Your task to perform on an android device: find photos in the google photos app Image 0: 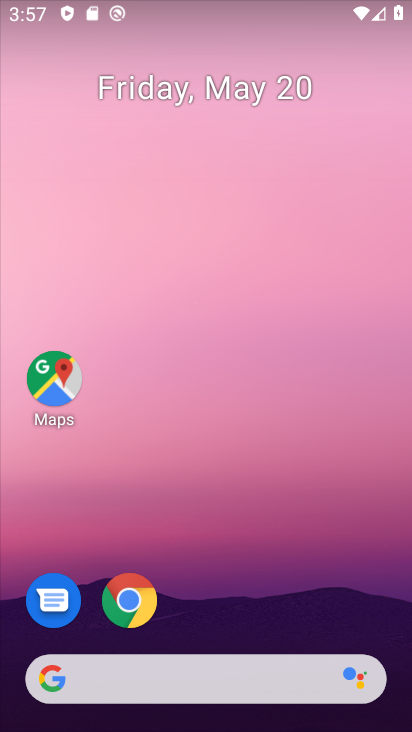
Step 0: drag from (216, 527) to (167, 16)
Your task to perform on an android device: find photos in the google photos app Image 1: 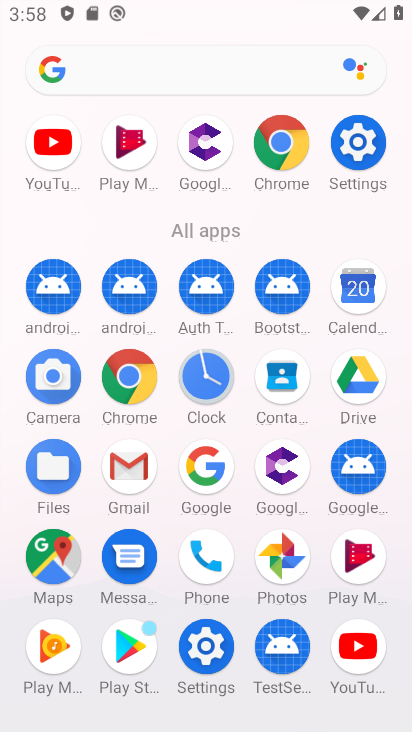
Step 1: drag from (10, 597) to (16, 251)
Your task to perform on an android device: find photos in the google photos app Image 2: 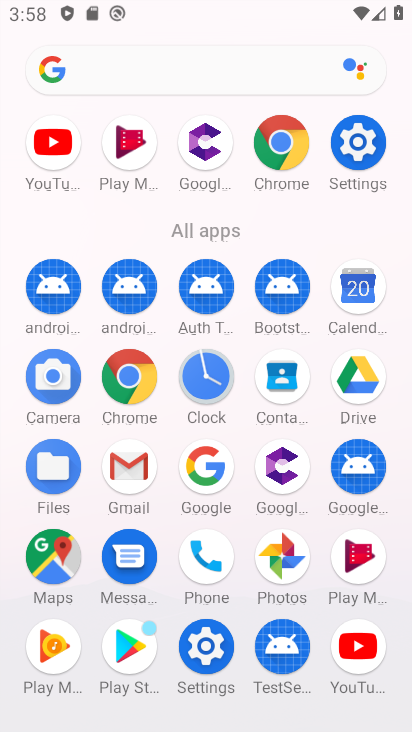
Step 2: drag from (15, 620) to (14, 319)
Your task to perform on an android device: find photos in the google photos app Image 3: 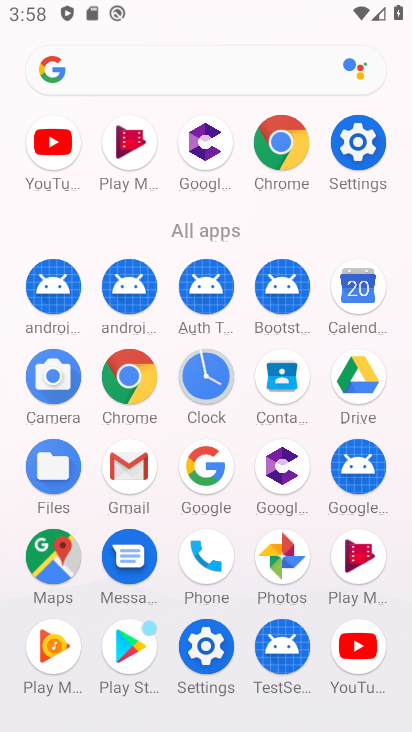
Step 3: drag from (20, 606) to (9, 289)
Your task to perform on an android device: find photos in the google photos app Image 4: 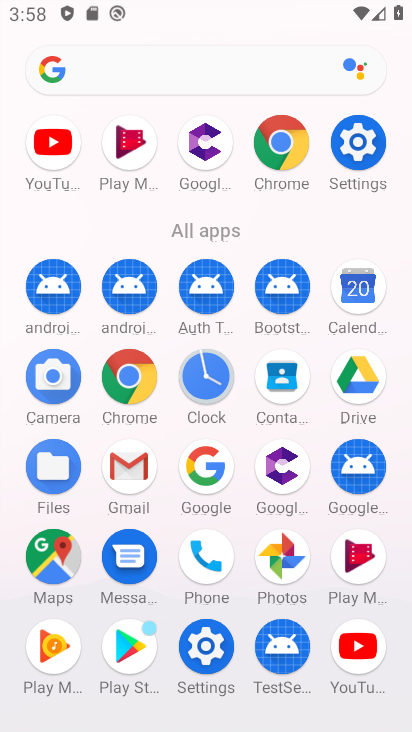
Step 4: click (276, 551)
Your task to perform on an android device: find photos in the google photos app Image 5: 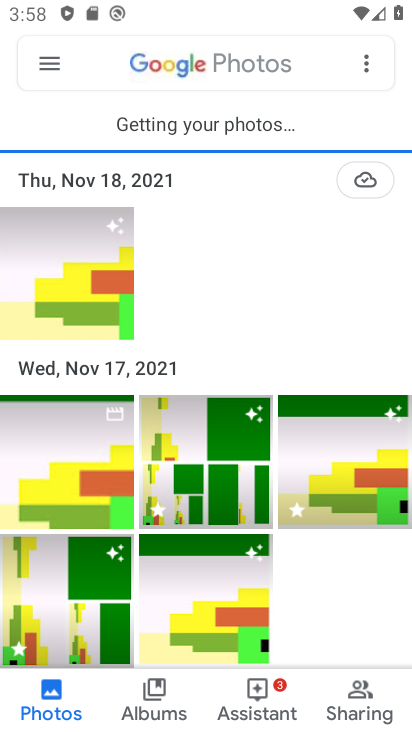
Step 5: task complete